Your task to perform on an android device: delete browsing data in the chrome app Image 0: 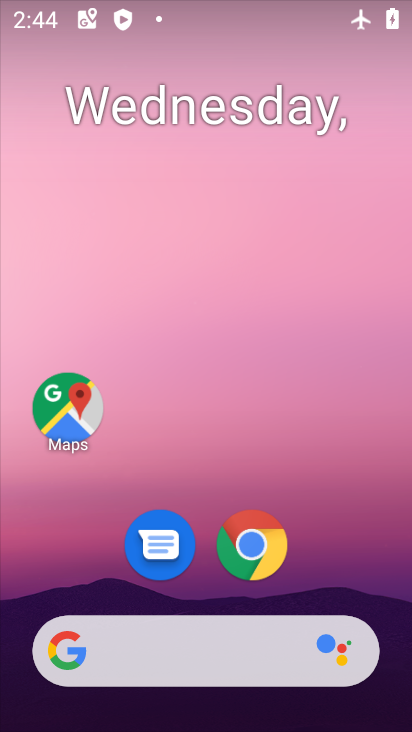
Step 0: click (246, 548)
Your task to perform on an android device: delete browsing data in the chrome app Image 1: 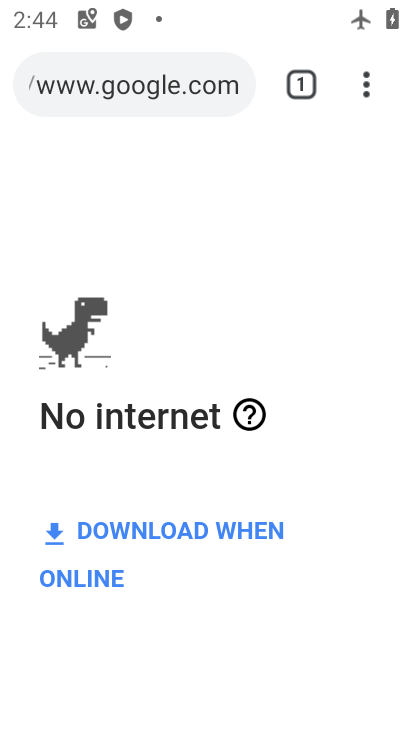
Step 1: drag from (375, 81) to (151, 478)
Your task to perform on an android device: delete browsing data in the chrome app Image 2: 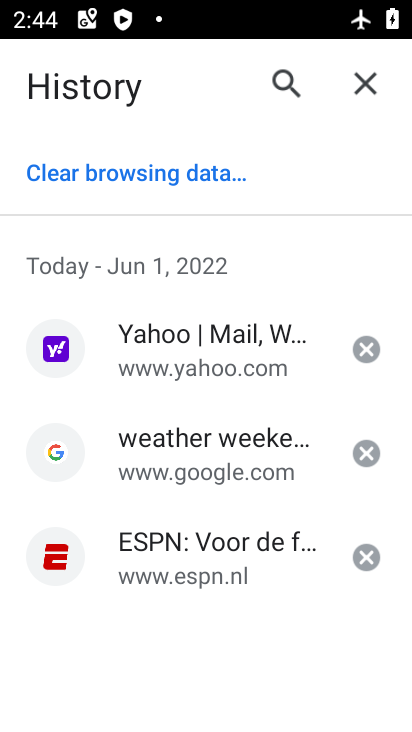
Step 2: click (194, 175)
Your task to perform on an android device: delete browsing data in the chrome app Image 3: 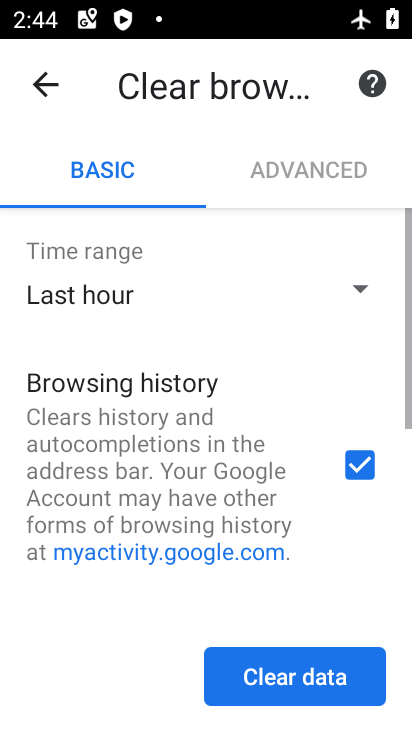
Step 3: click (106, 291)
Your task to perform on an android device: delete browsing data in the chrome app Image 4: 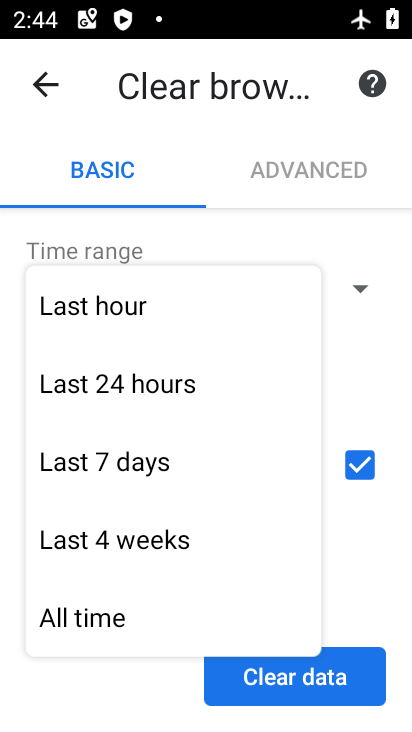
Step 4: click (96, 615)
Your task to perform on an android device: delete browsing data in the chrome app Image 5: 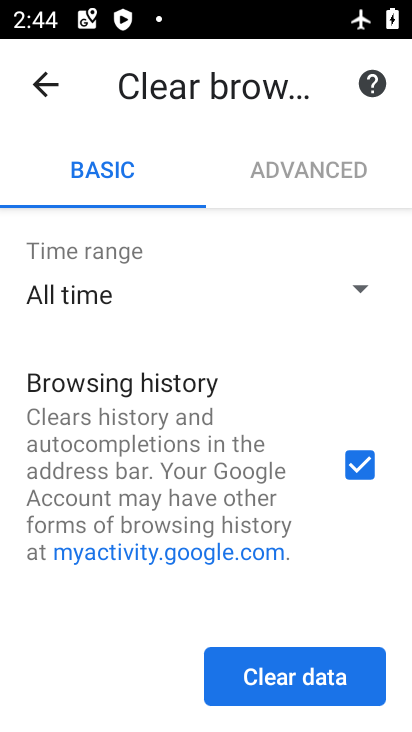
Step 5: click (345, 674)
Your task to perform on an android device: delete browsing data in the chrome app Image 6: 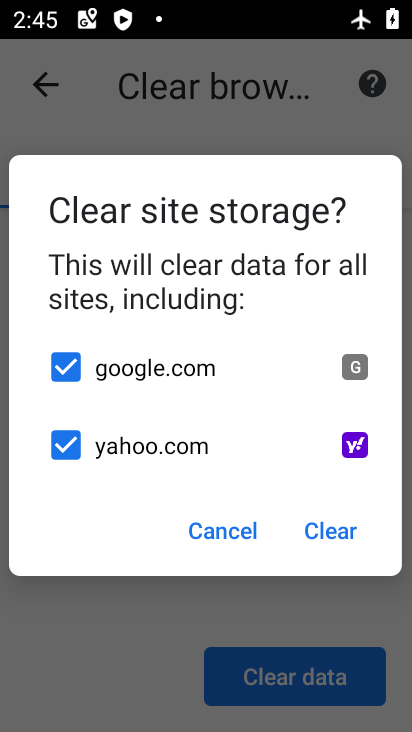
Step 6: click (333, 528)
Your task to perform on an android device: delete browsing data in the chrome app Image 7: 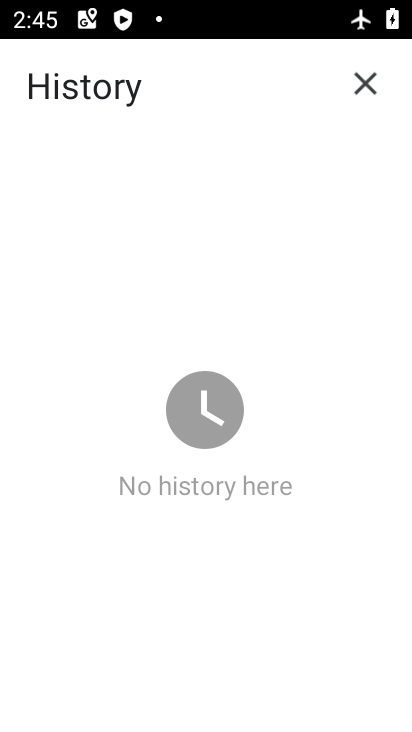
Step 7: task complete